Your task to perform on an android device: Go to wifi settings Image 0: 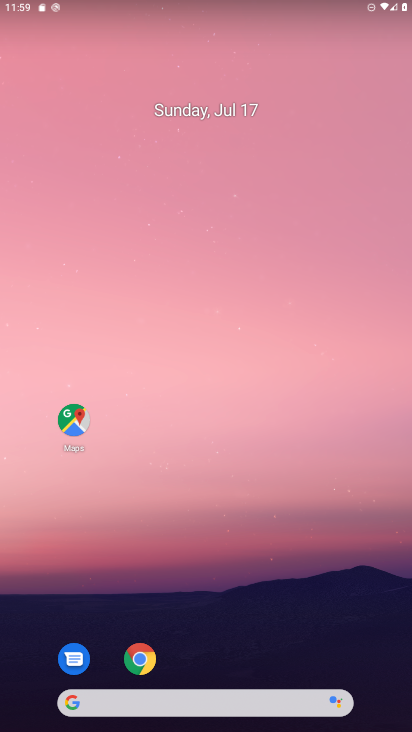
Step 0: drag from (265, 698) to (236, 174)
Your task to perform on an android device: Go to wifi settings Image 1: 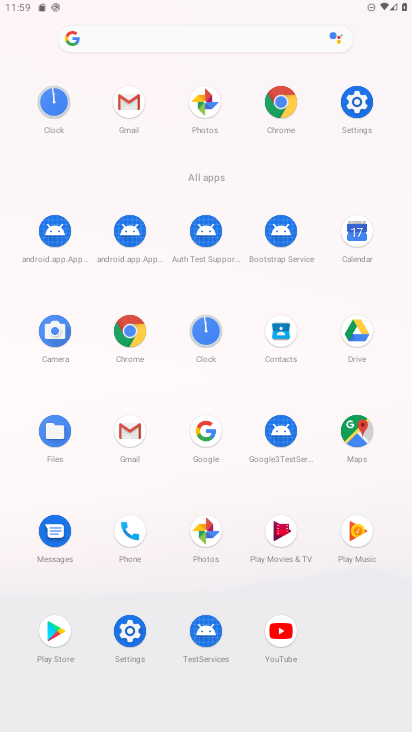
Step 1: click (133, 265)
Your task to perform on an android device: Go to wifi settings Image 2: 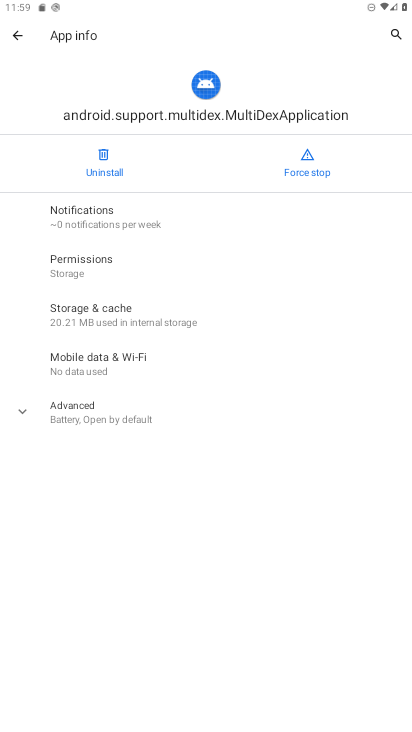
Step 2: click (130, 641)
Your task to perform on an android device: Go to wifi settings Image 3: 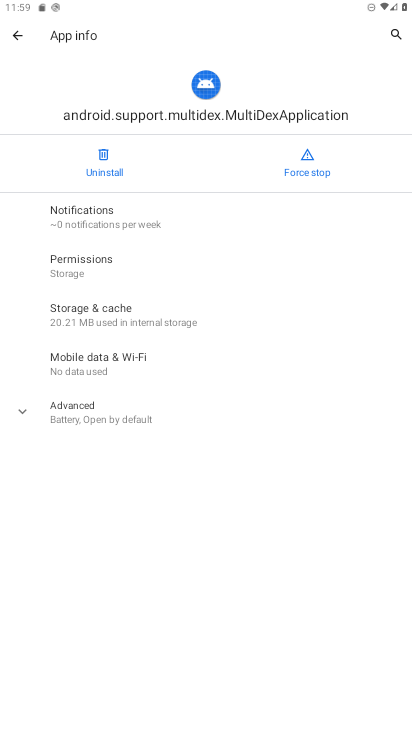
Step 3: click (17, 30)
Your task to perform on an android device: Go to wifi settings Image 4: 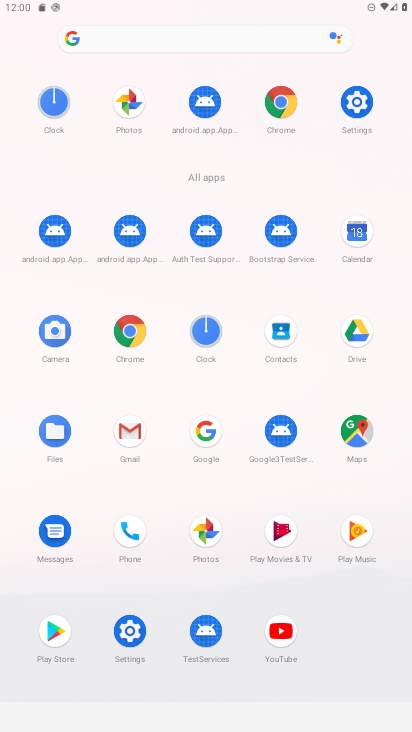
Step 4: click (359, 107)
Your task to perform on an android device: Go to wifi settings Image 5: 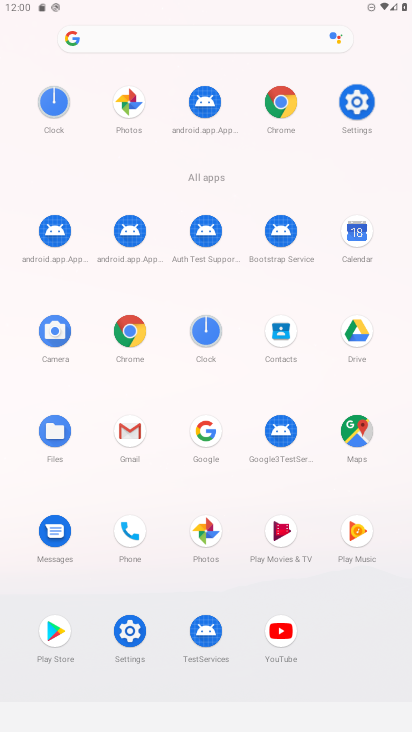
Step 5: click (359, 105)
Your task to perform on an android device: Go to wifi settings Image 6: 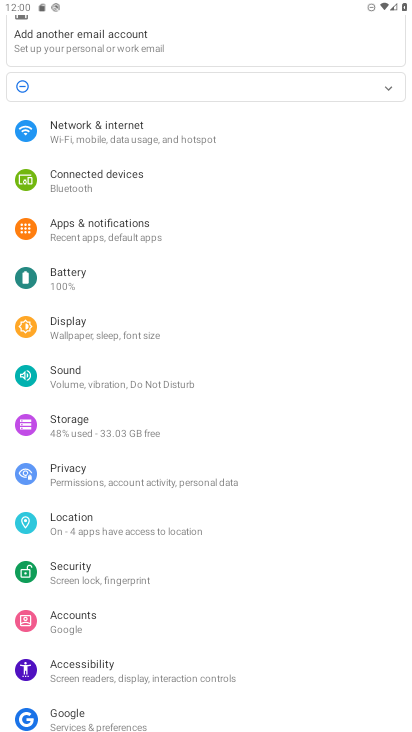
Step 6: click (109, 133)
Your task to perform on an android device: Go to wifi settings Image 7: 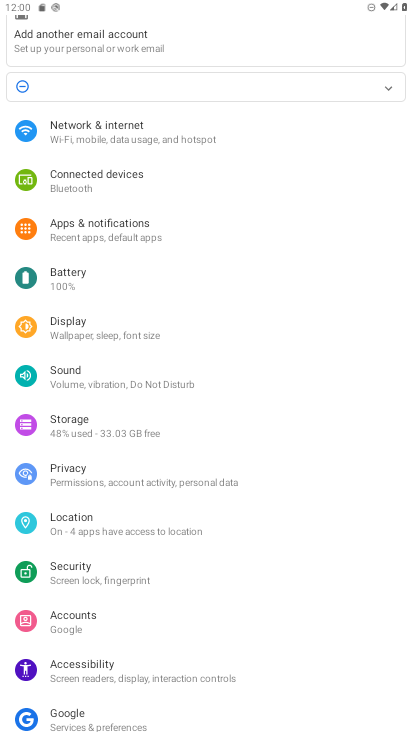
Step 7: click (109, 133)
Your task to perform on an android device: Go to wifi settings Image 8: 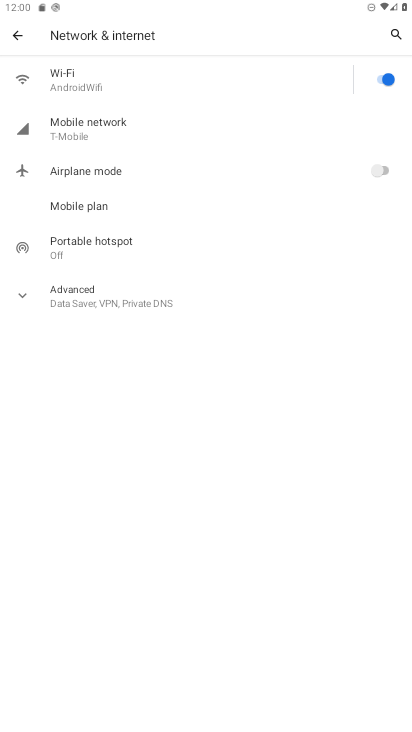
Step 8: task complete